Your task to perform on an android device: snooze an email in the gmail app Image 0: 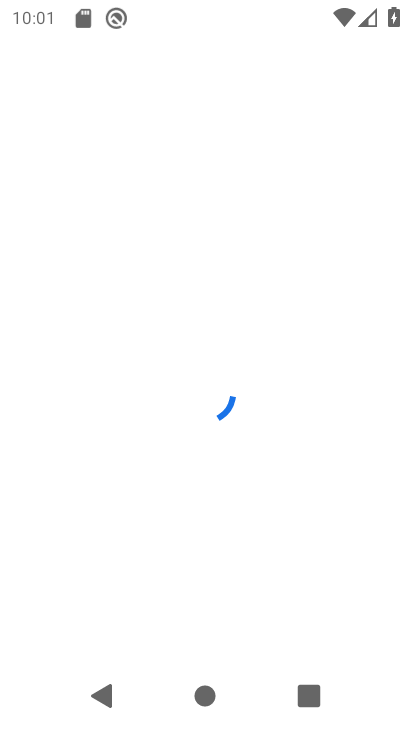
Step 0: press home button
Your task to perform on an android device: snooze an email in the gmail app Image 1: 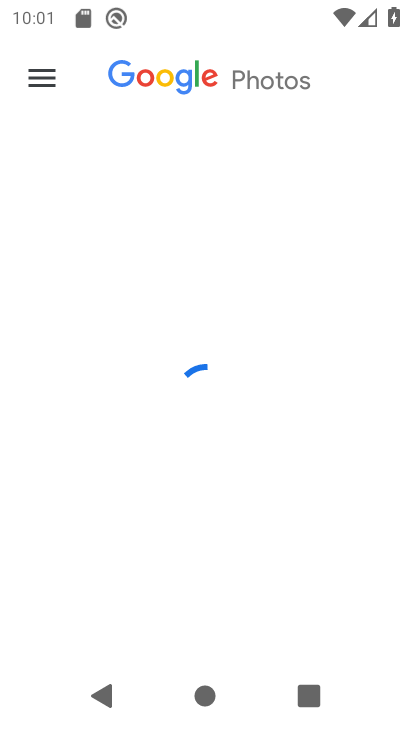
Step 1: press home button
Your task to perform on an android device: snooze an email in the gmail app Image 2: 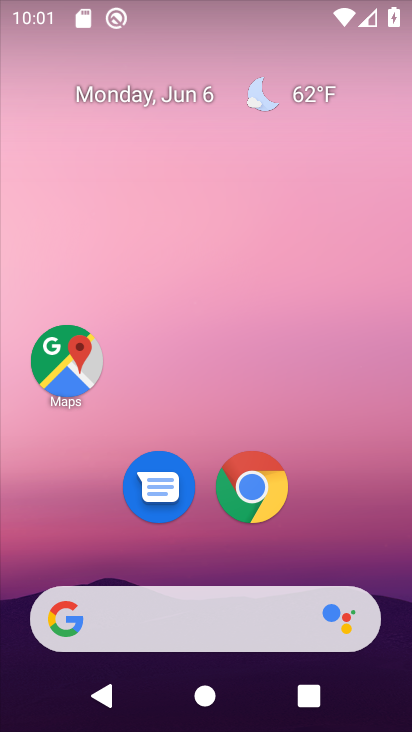
Step 2: press home button
Your task to perform on an android device: snooze an email in the gmail app Image 3: 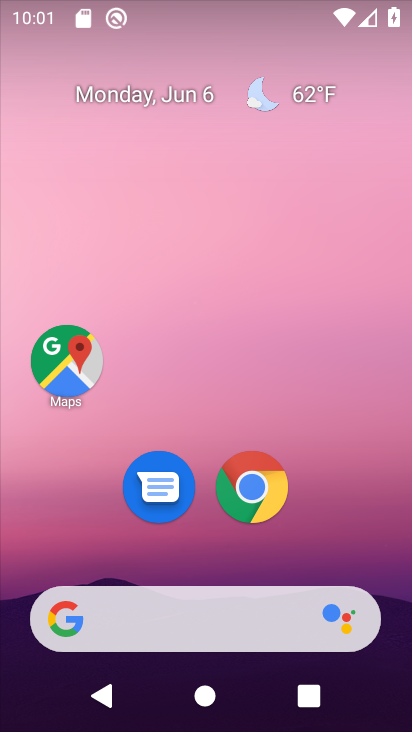
Step 3: drag from (383, 602) to (301, 51)
Your task to perform on an android device: snooze an email in the gmail app Image 4: 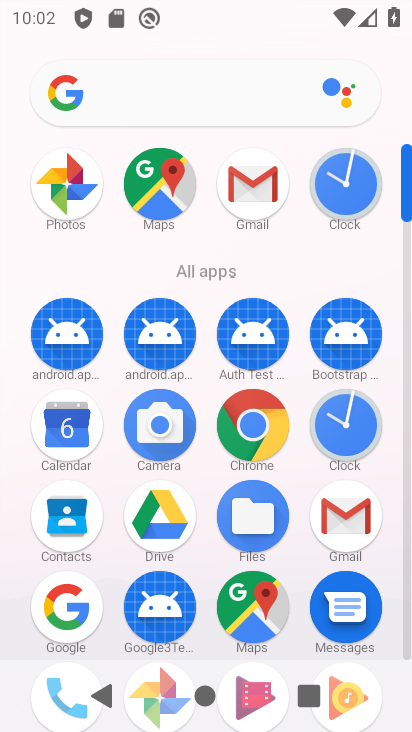
Step 4: click (240, 211)
Your task to perform on an android device: snooze an email in the gmail app Image 5: 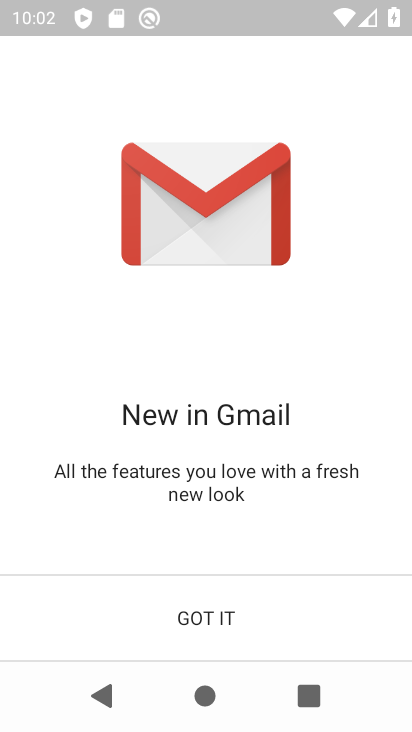
Step 5: click (271, 612)
Your task to perform on an android device: snooze an email in the gmail app Image 6: 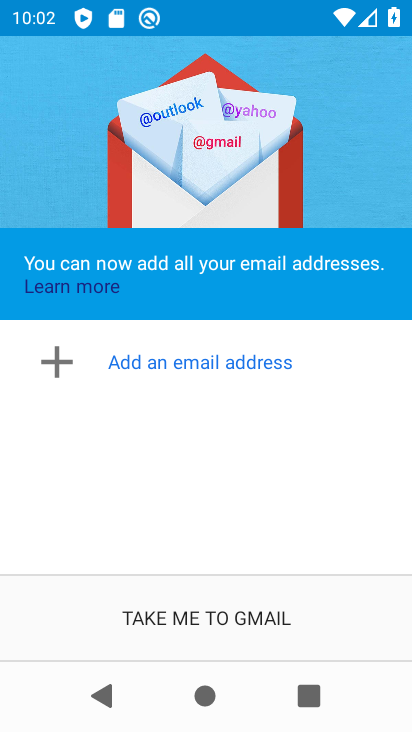
Step 6: click (218, 618)
Your task to perform on an android device: snooze an email in the gmail app Image 7: 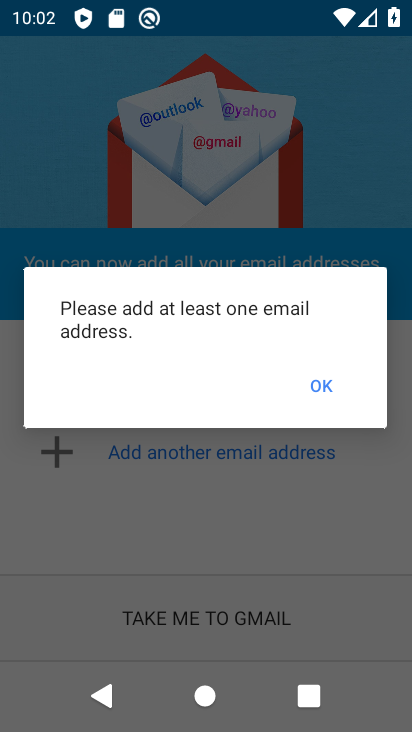
Step 7: click (314, 389)
Your task to perform on an android device: snooze an email in the gmail app Image 8: 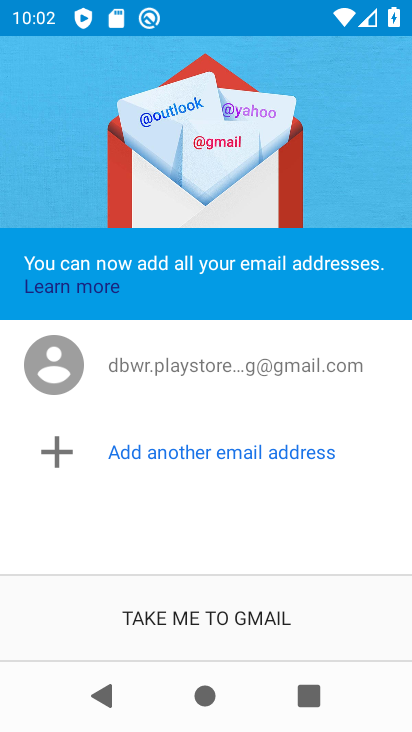
Step 8: click (244, 632)
Your task to perform on an android device: snooze an email in the gmail app Image 9: 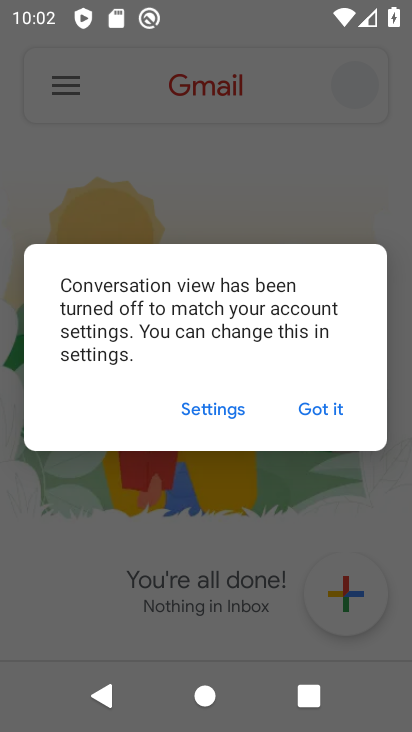
Step 9: click (323, 408)
Your task to perform on an android device: snooze an email in the gmail app Image 10: 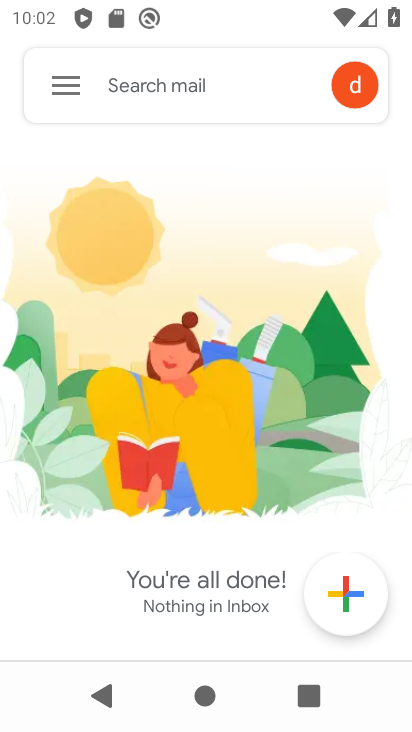
Step 10: task complete